Your task to perform on an android device: delete location history Image 0: 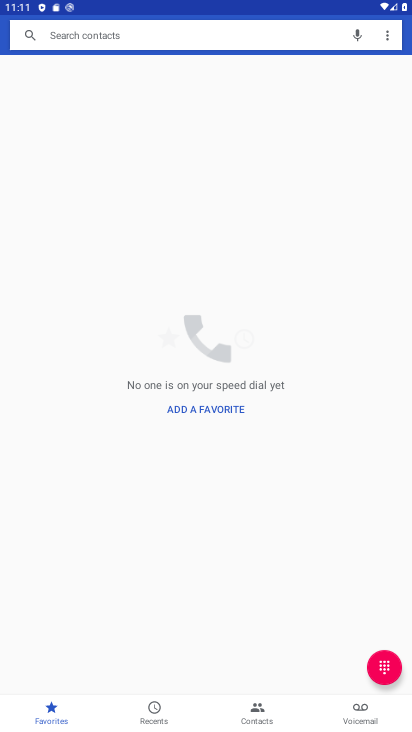
Step 0: press home button
Your task to perform on an android device: delete location history Image 1: 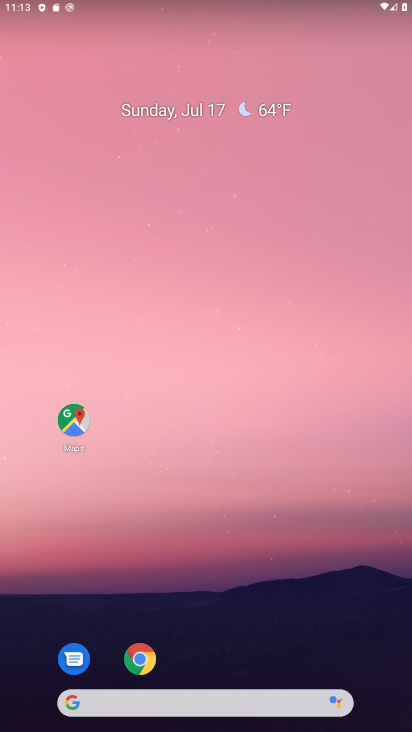
Step 1: drag from (240, 598) to (256, 101)
Your task to perform on an android device: delete location history Image 2: 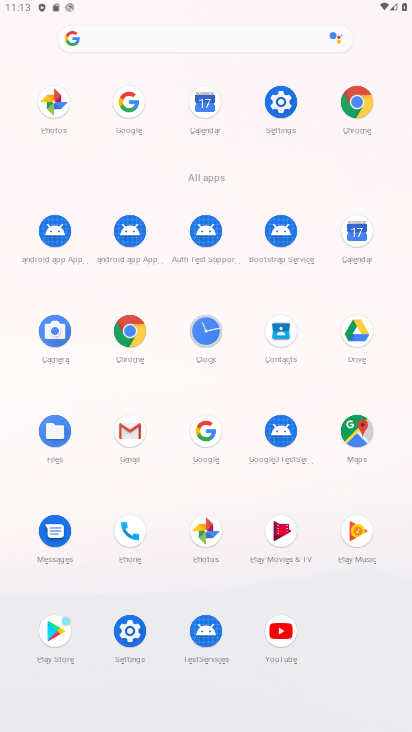
Step 2: click (126, 624)
Your task to perform on an android device: delete location history Image 3: 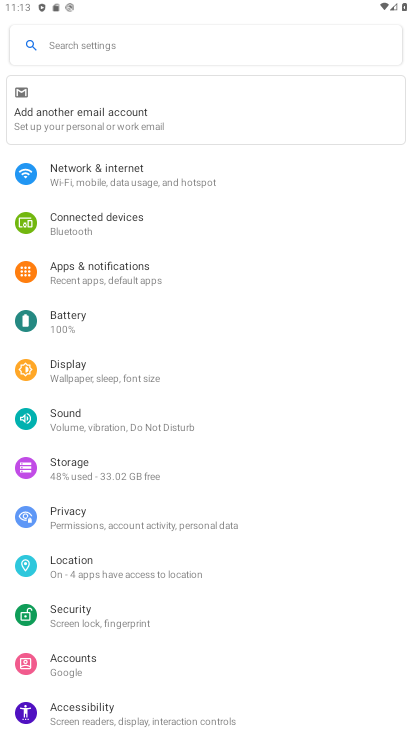
Step 3: click (77, 565)
Your task to perform on an android device: delete location history Image 4: 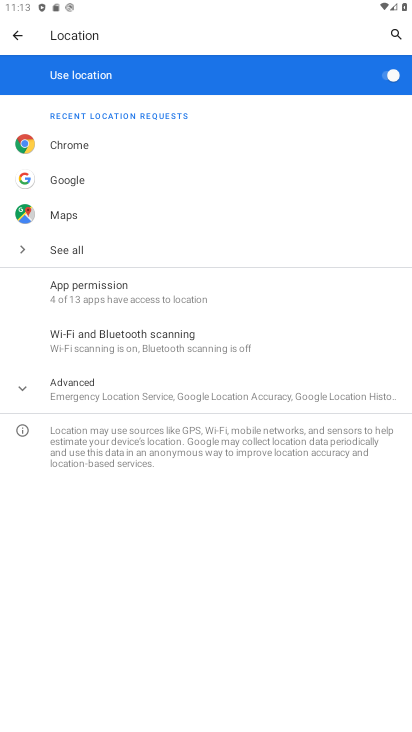
Step 4: task complete